Your task to perform on an android device: change notification settings in the gmail app Image 0: 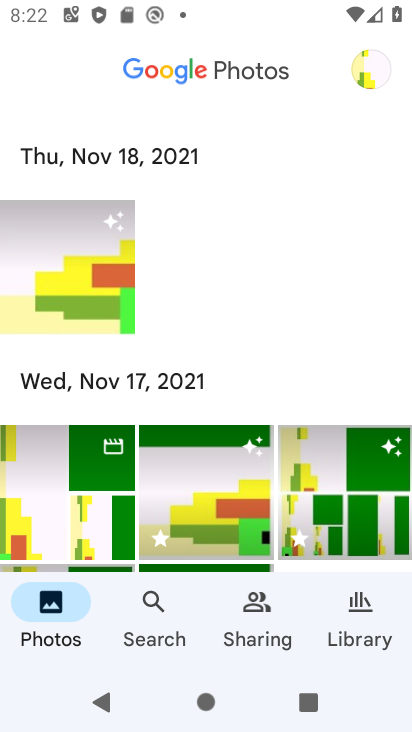
Step 0: press home button
Your task to perform on an android device: change notification settings in the gmail app Image 1: 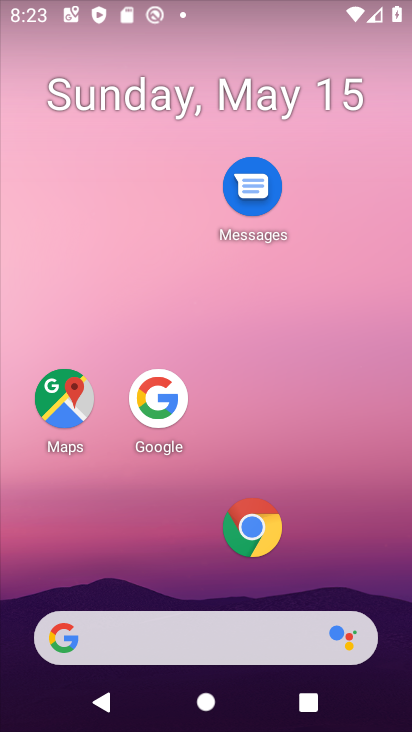
Step 1: drag from (190, 633) to (292, 228)
Your task to perform on an android device: change notification settings in the gmail app Image 2: 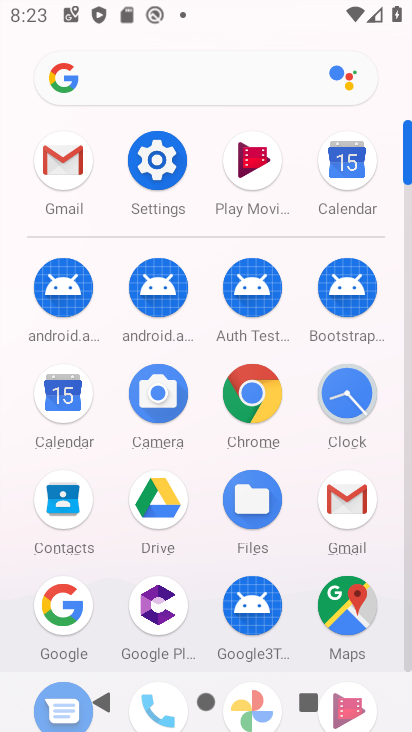
Step 2: click (60, 167)
Your task to perform on an android device: change notification settings in the gmail app Image 3: 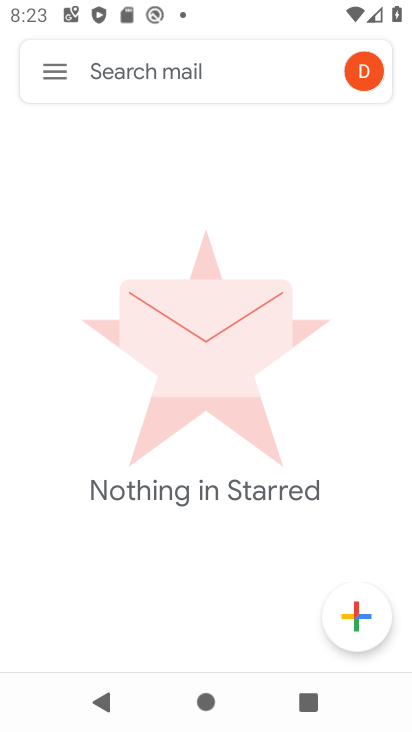
Step 3: click (47, 72)
Your task to perform on an android device: change notification settings in the gmail app Image 4: 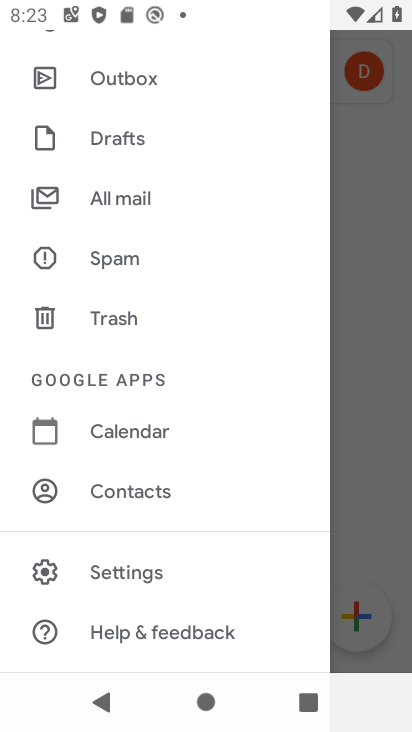
Step 4: click (134, 579)
Your task to perform on an android device: change notification settings in the gmail app Image 5: 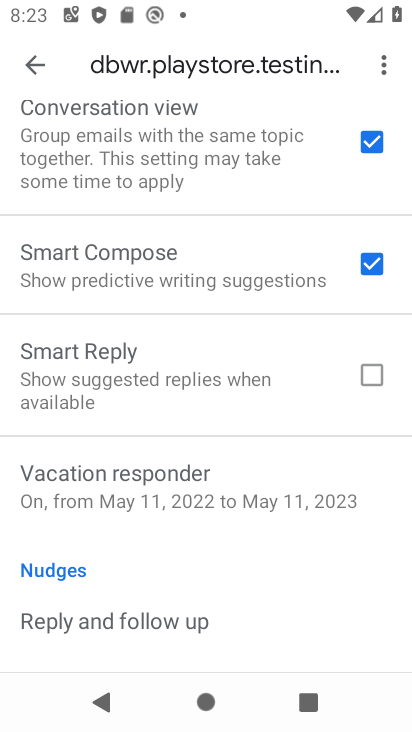
Step 5: drag from (202, 141) to (174, 527)
Your task to perform on an android device: change notification settings in the gmail app Image 6: 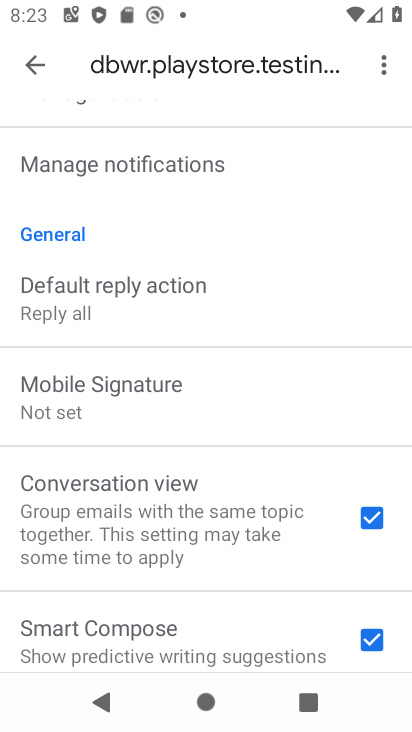
Step 6: drag from (238, 225) to (198, 565)
Your task to perform on an android device: change notification settings in the gmail app Image 7: 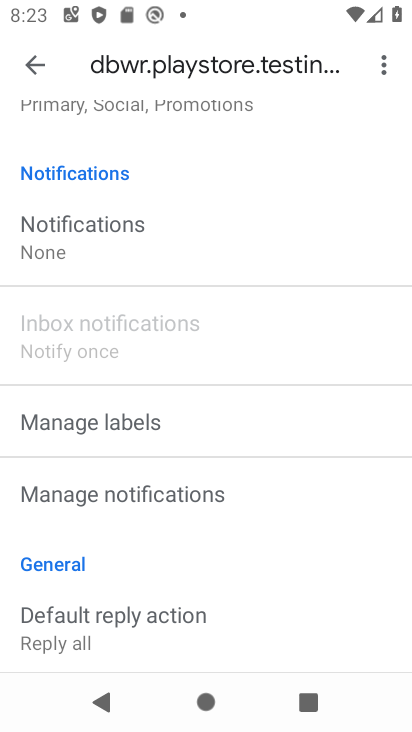
Step 7: click (73, 242)
Your task to perform on an android device: change notification settings in the gmail app Image 8: 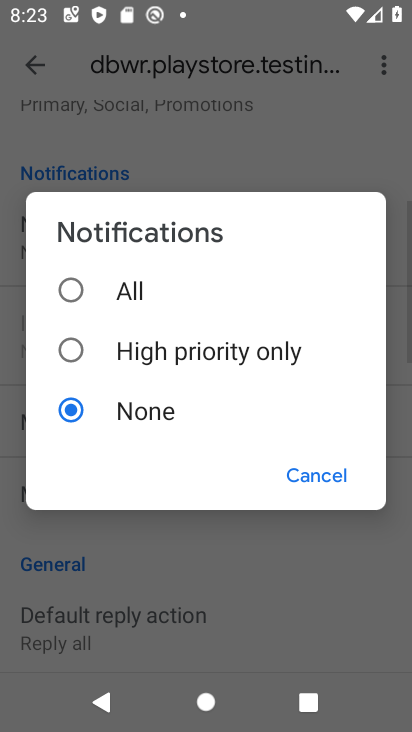
Step 8: click (73, 297)
Your task to perform on an android device: change notification settings in the gmail app Image 9: 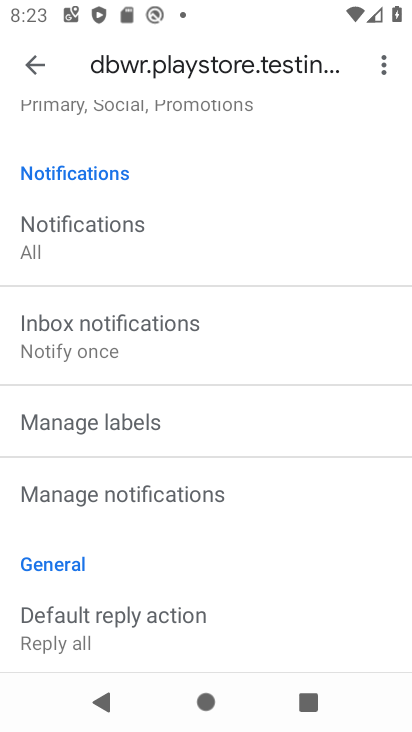
Step 9: task complete